Your task to perform on an android device: Go to Yahoo.com Image 0: 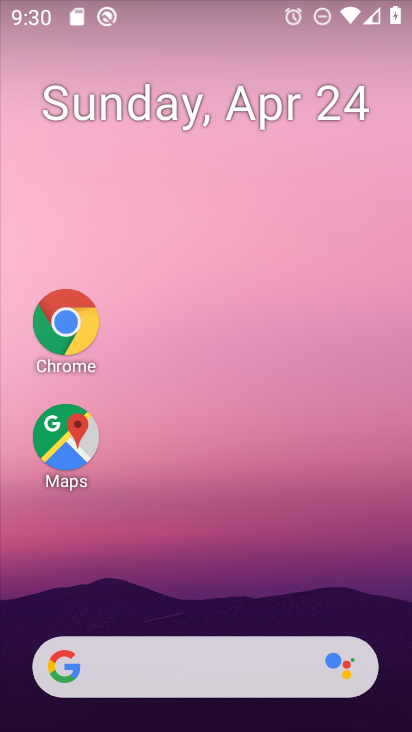
Step 0: click (65, 321)
Your task to perform on an android device: Go to Yahoo.com Image 1: 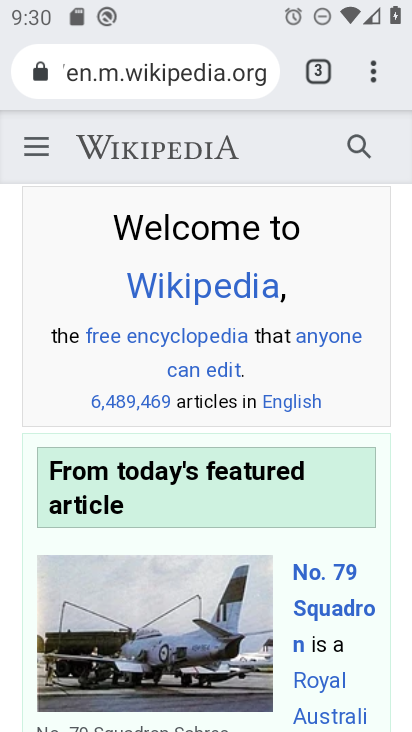
Step 1: click (370, 69)
Your task to perform on an android device: Go to Yahoo.com Image 2: 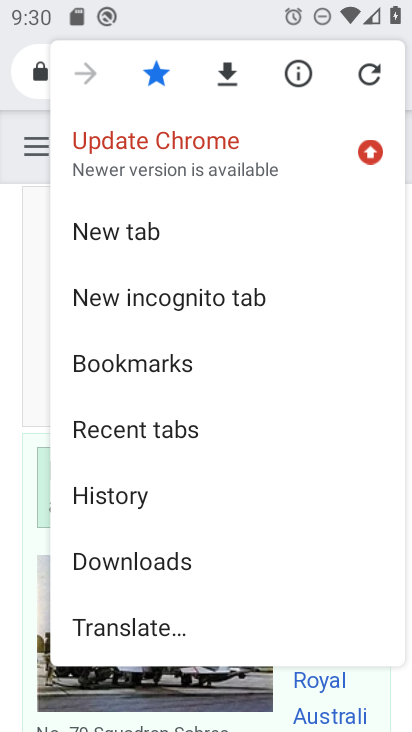
Step 2: click (120, 228)
Your task to perform on an android device: Go to Yahoo.com Image 3: 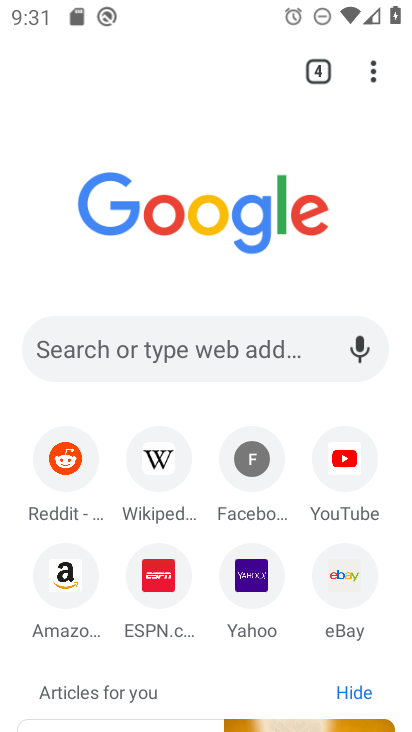
Step 3: click (245, 562)
Your task to perform on an android device: Go to Yahoo.com Image 4: 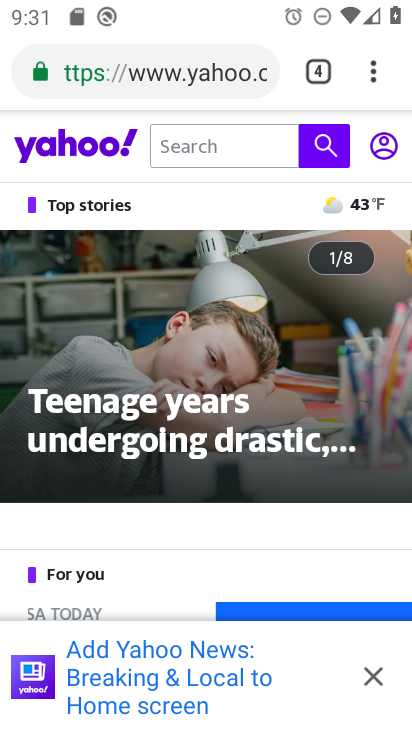
Step 4: task complete